Your task to perform on an android device: Search for Italian restaurants on Maps Image 0: 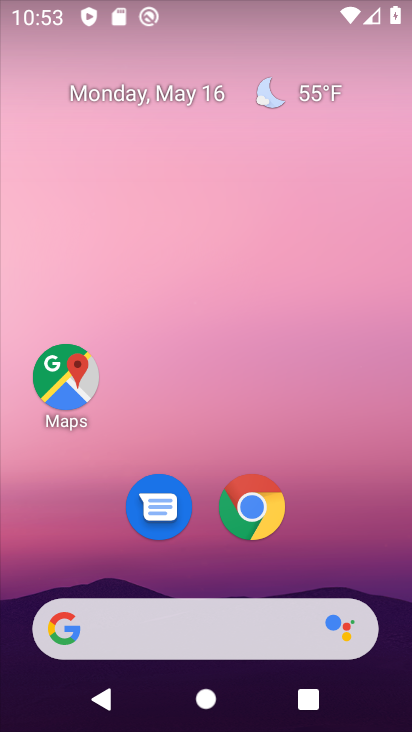
Step 0: click (47, 339)
Your task to perform on an android device: Search for Italian restaurants on Maps Image 1: 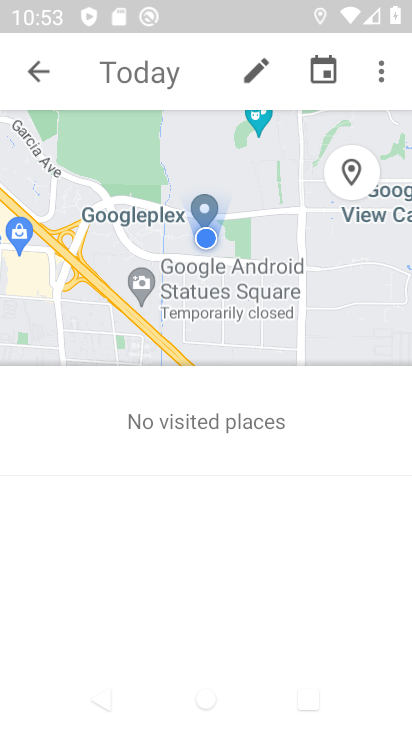
Step 1: press back button
Your task to perform on an android device: Search for Italian restaurants on Maps Image 2: 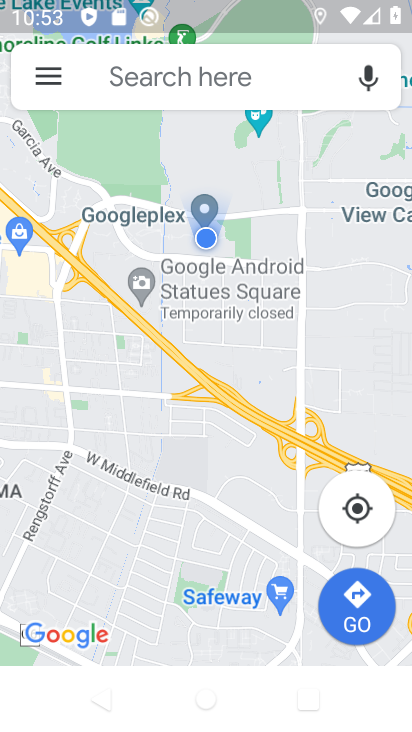
Step 2: click (129, 79)
Your task to perform on an android device: Search for Italian restaurants on Maps Image 3: 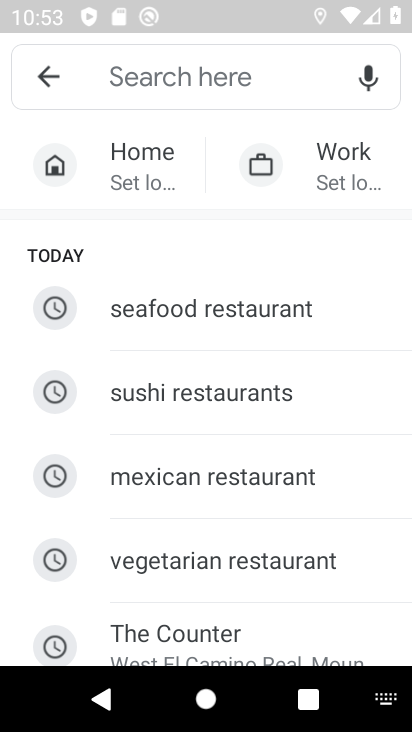
Step 3: drag from (195, 622) to (232, 305)
Your task to perform on an android device: Search for Italian restaurants on Maps Image 4: 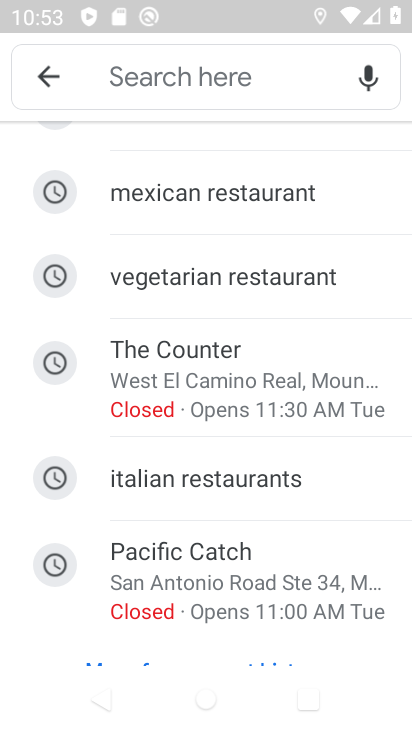
Step 4: click (224, 482)
Your task to perform on an android device: Search for Italian restaurants on Maps Image 5: 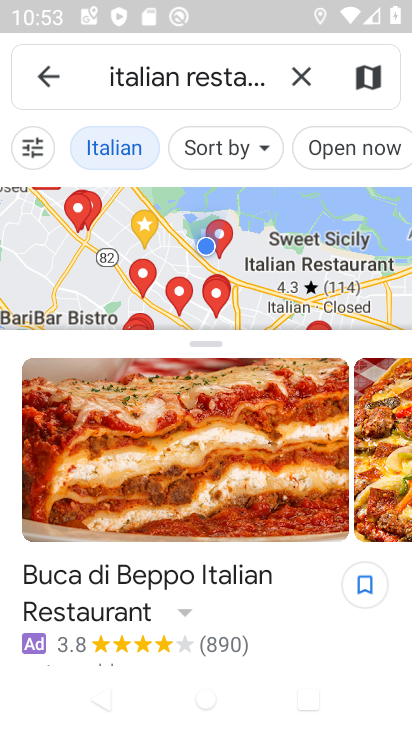
Step 5: task complete